Your task to perform on an android device: open app "Gmail" (install if not already installed), go to login, and select forgot password Image 0: 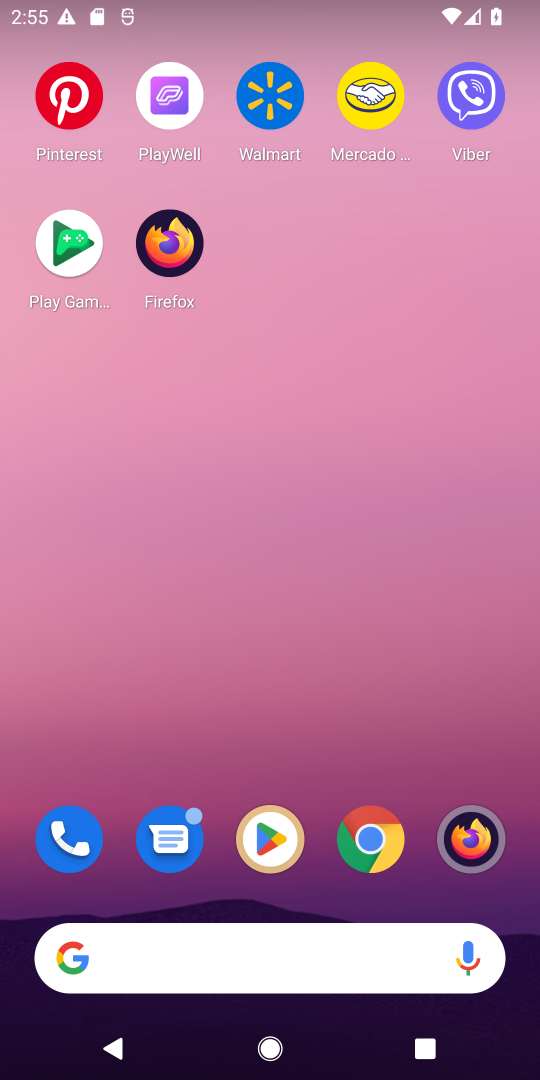
Step 0: click (291, 847)
Your task to perform on an android device: open app "Gmail" (install if not already installed), go to login, and select forgot password Image 1: 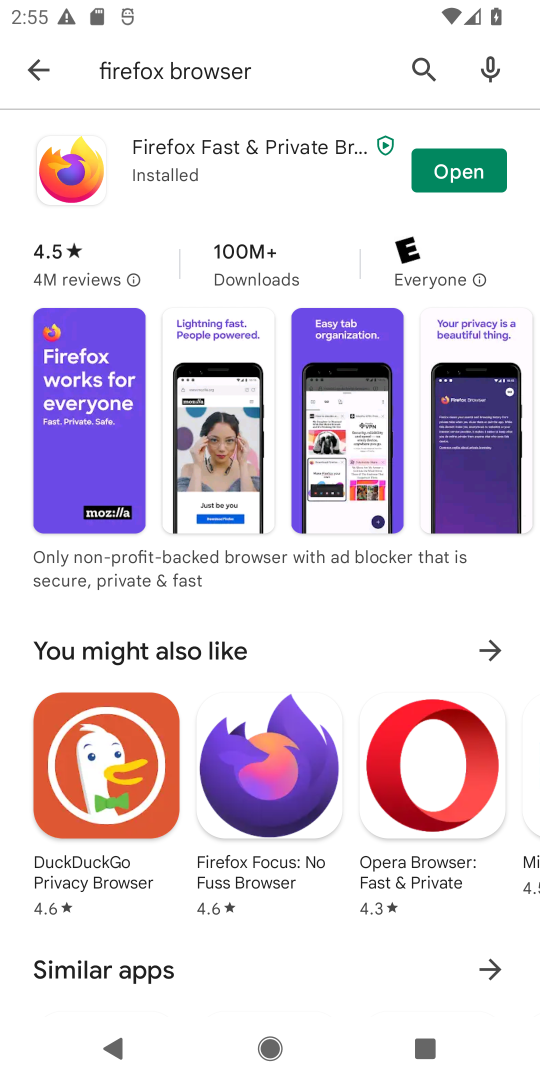
Step 1: click (35, 64)
Your task to perform on an android device: open app "Gmail" (install if not already installed), go to login, and select forgot password Image 2: 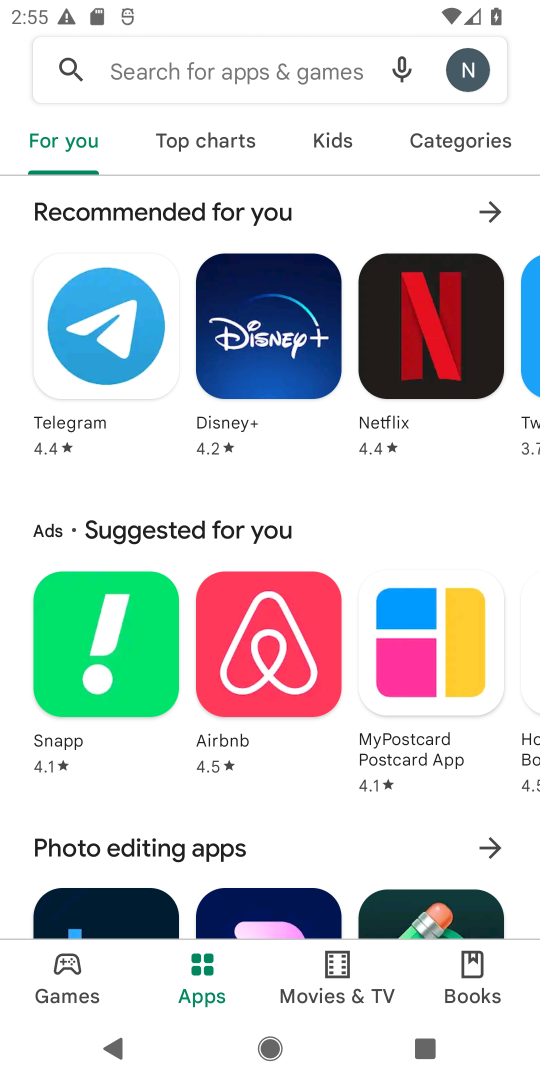
Step 2: click (148, 67)
Your task to perform on an android device: open app "Gmail" (install if not already installed), go to login, and select forgot password Image 3: 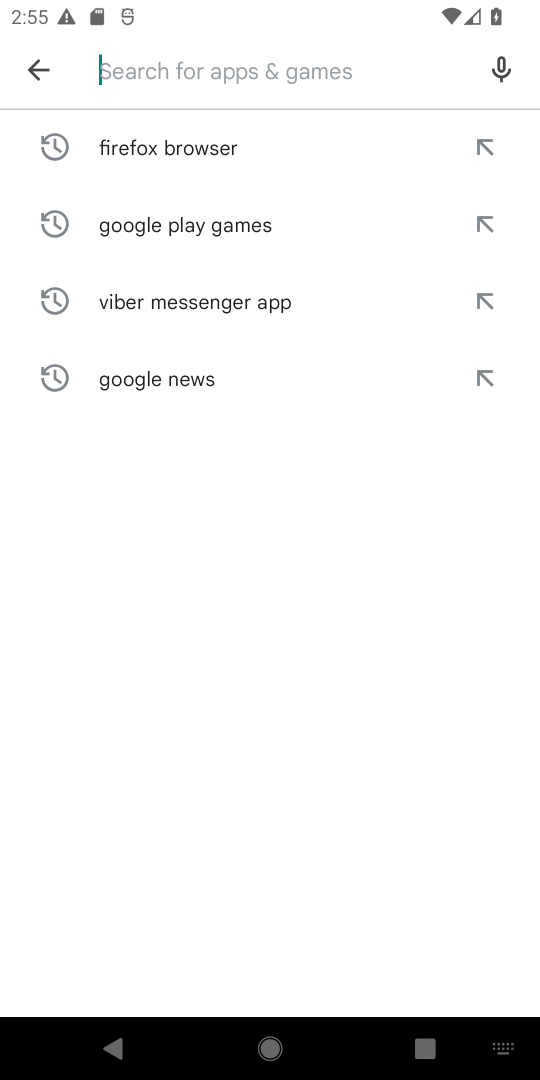
Step 3: type "Gmail"
Your task to perform on an android device: open app "Gmail" (install if not already installed), go to login, and select forgot password Image 4: 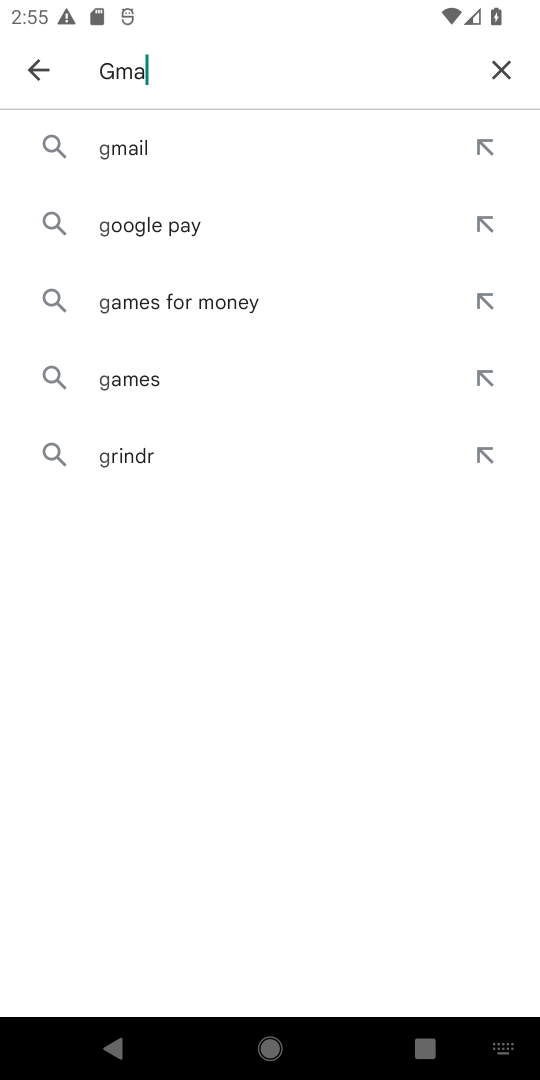
Step 4: type ""
Your task to perform on an android device: open app "Gmail" (install if not already installed), go to login, and select forgot password Image 5: 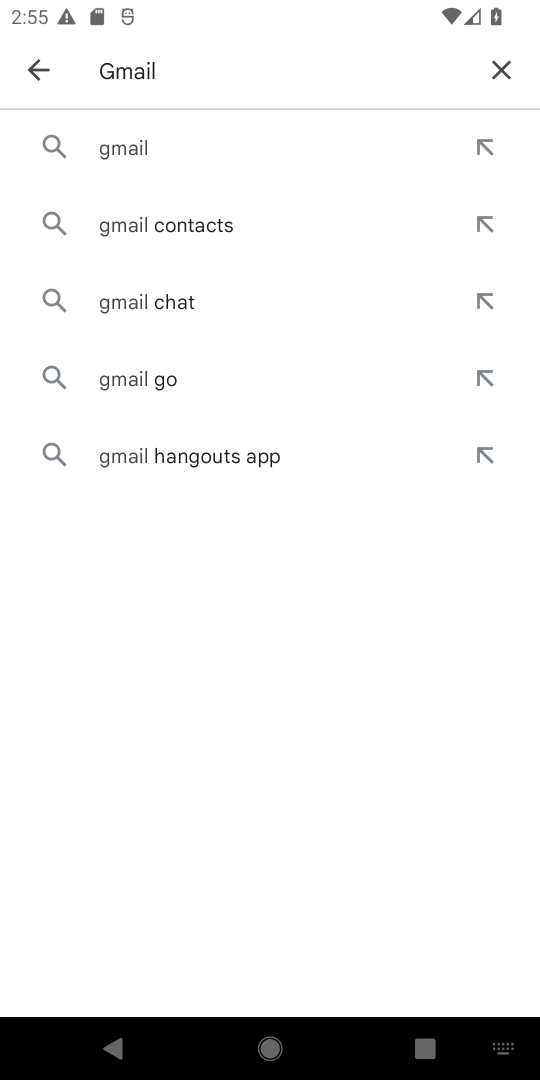
Step 5: click (98, 160)
Your task to perform on an android device: open app "Gmail" (install if not already installed), go to login, and select forgot password Image 6: 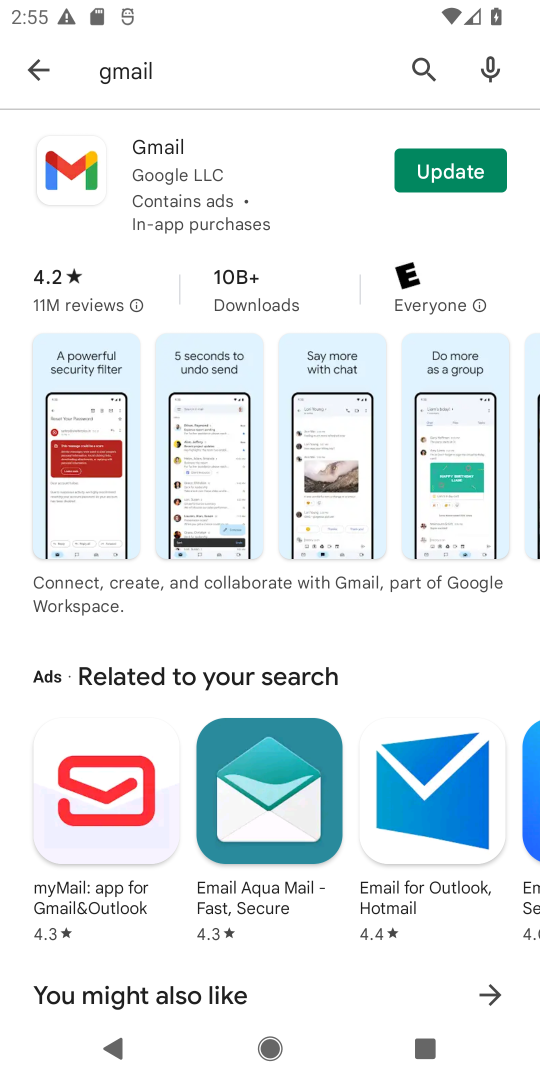
Step 6: click (434, 171)
Your task to perform on an android device: open app "Gmail" (install if not already installed), go to login, and select forgot password Image 7: 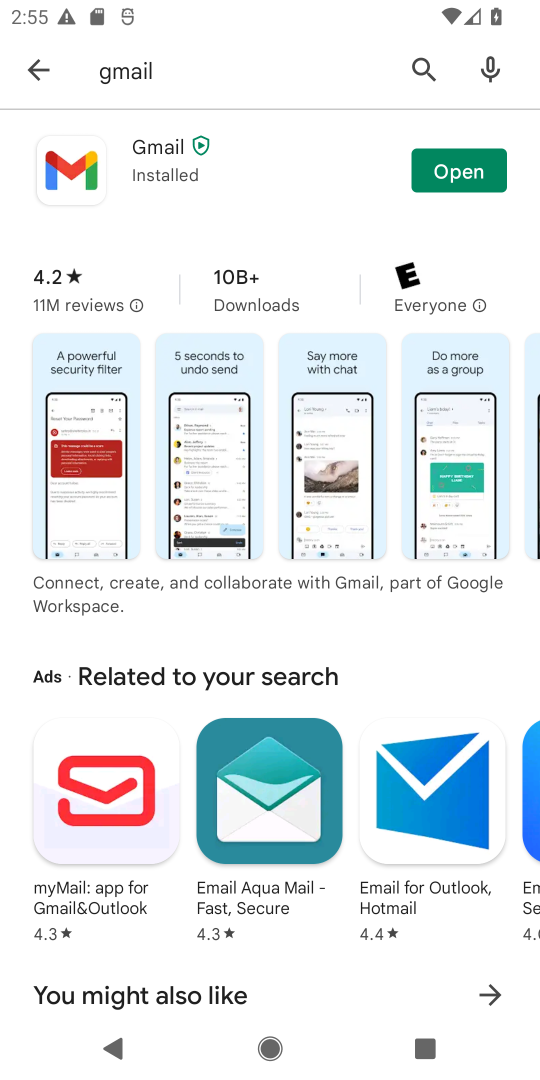
Step 7: click (434, 171)
Your task to perform on an android device: open app "Gmail" (install if not already installed), go to login, and select forgot password Image 8: 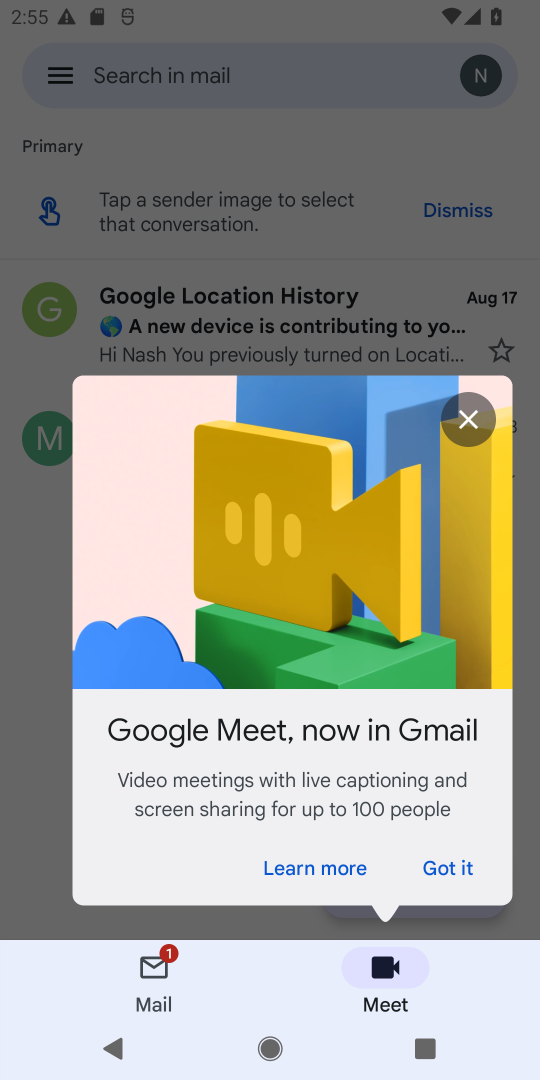
Step 8: click (476, 872)
Your task to perform on an android device: open app "Gmail" (install if not already installed), go to login, and select forgot password Image 9: 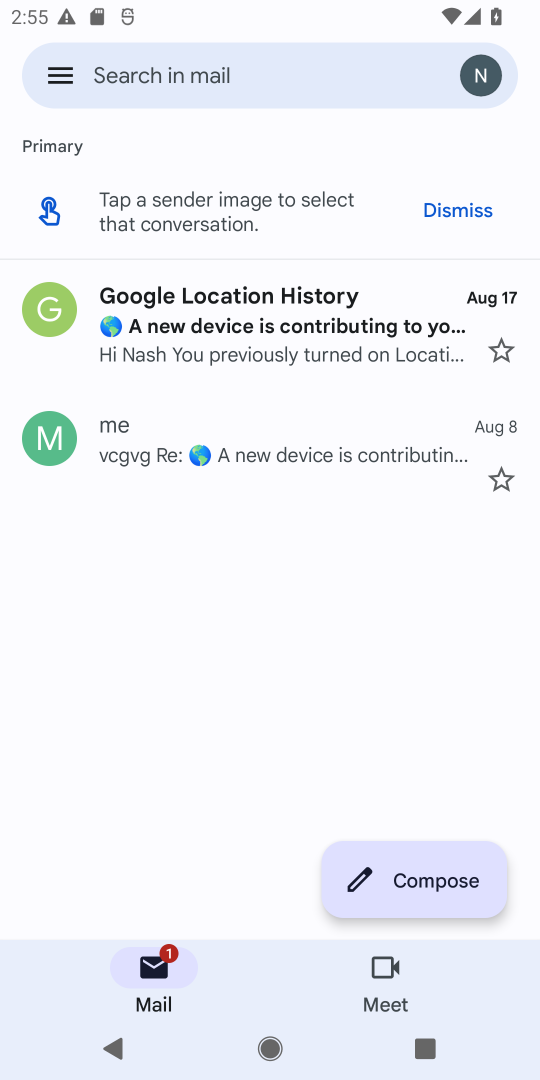
Step 9: task complete